Your task to perform on an android device: change notifications settings Image 0: 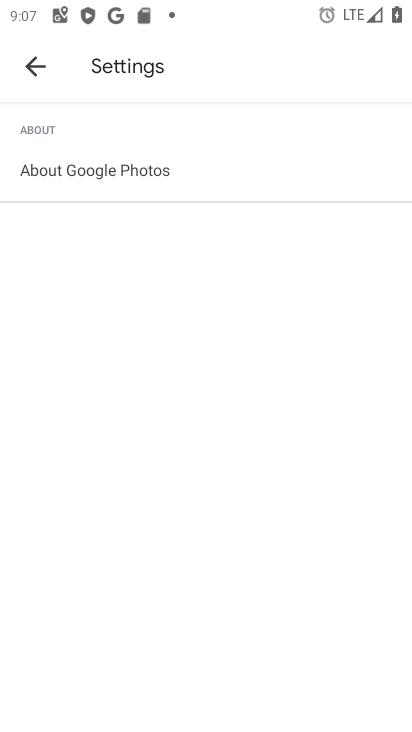
Step 0: press home button
Your task to perform on an android device: change notifications settings Image 1: 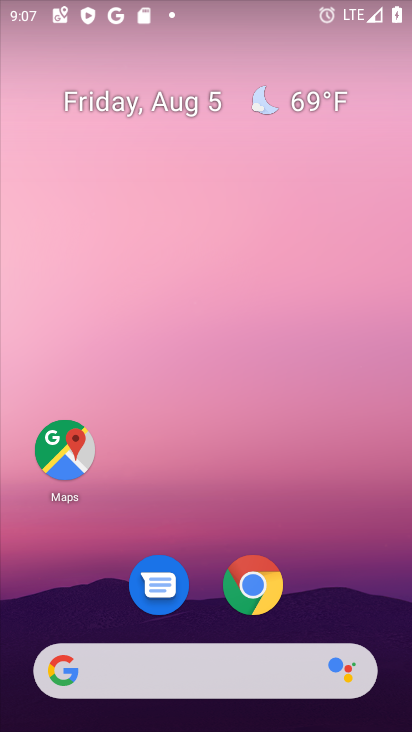
Step 1: drag from (312, 594) to (386, 20)
Your task to perform on an android device: change notifications settings Image 2: 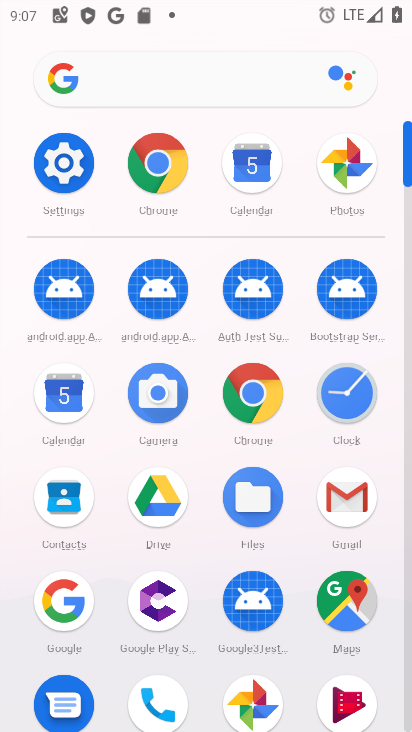
Step 2: click (72, 157)
Your task to perform on an android device: change notifications settings Image 3: 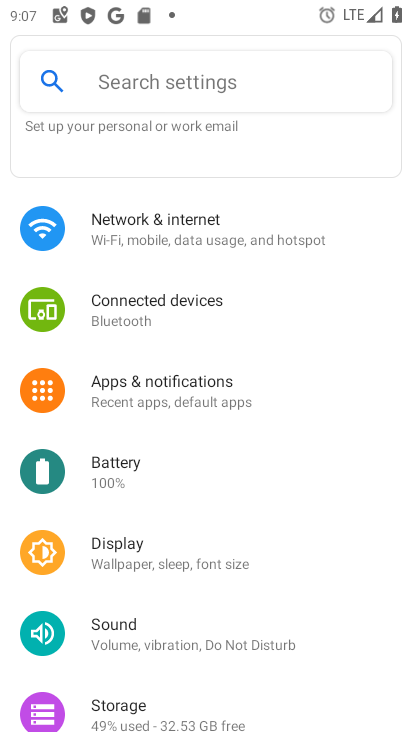
Step 3: click (205, 388)
Your task to perform on an android device: change notifications settings Image 4: 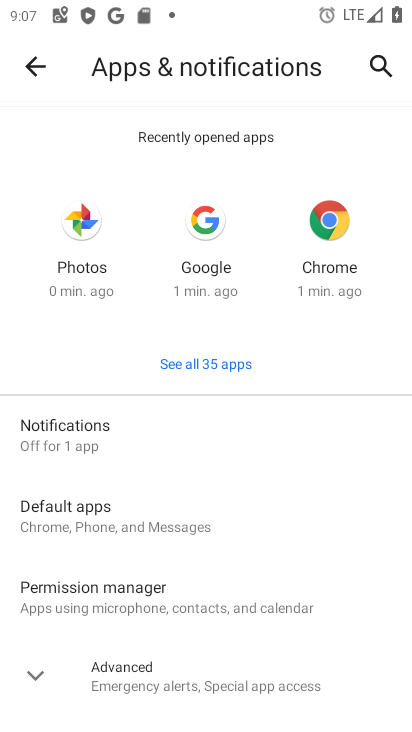
Step 4: click (97, 436)
Your task to perform on an android device: change notifications settings Image 5: 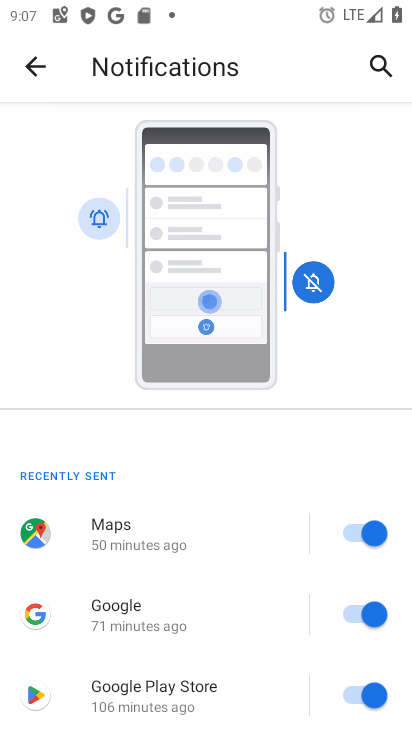
Step 5: drag from (264, 632) to (306, 218)
Your task to perform on an android device: change notifications settings Image 6: 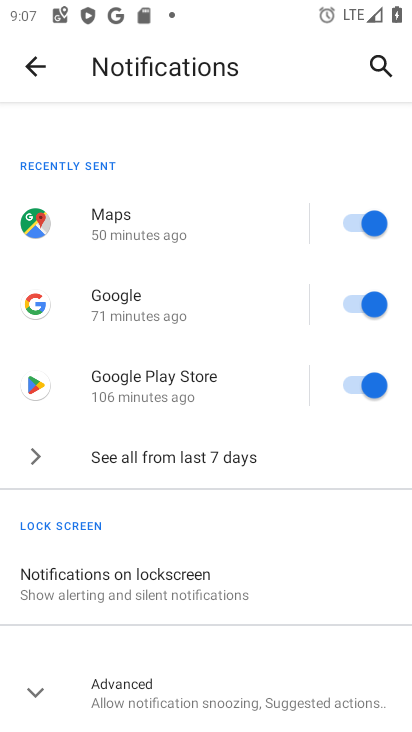
Step 6: click (235, 453)
Your task to perform on an android device: change notifications settings Image 7: 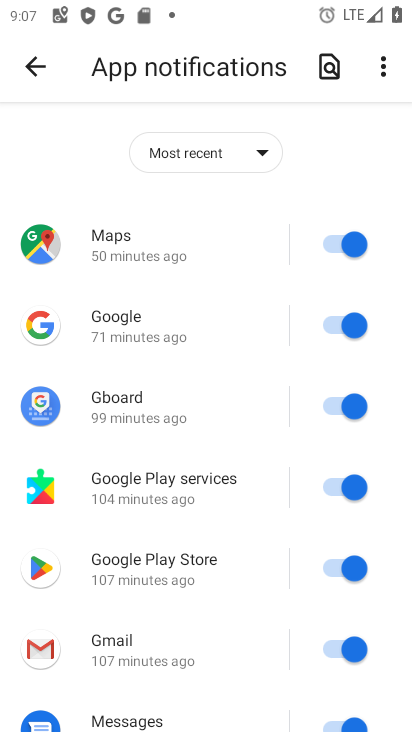
Step 7: click (342, 241)
Your task to perform on an android device: change notifications settings Image 8: 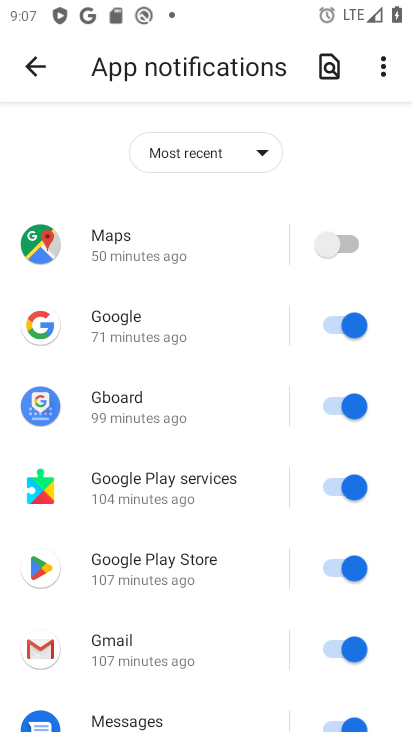
Step 8: click (345, 318)
Your task to perform on an android device: change notifications settings Image 9: 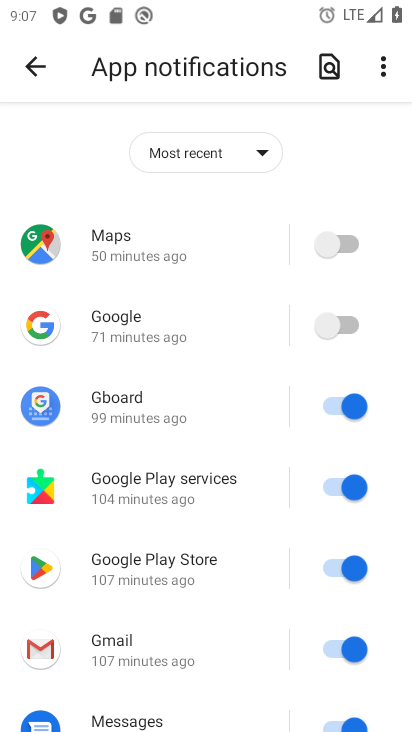
Step 9: click (347, 410)
Your task to perform on an android device: change notifications settings Image 10: 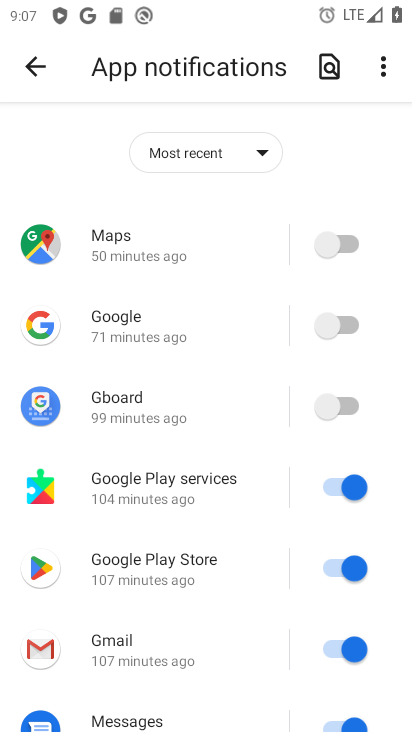
Step 10: click (347, 487)
Your task to perform on an android device: change notifications settings Image 11: 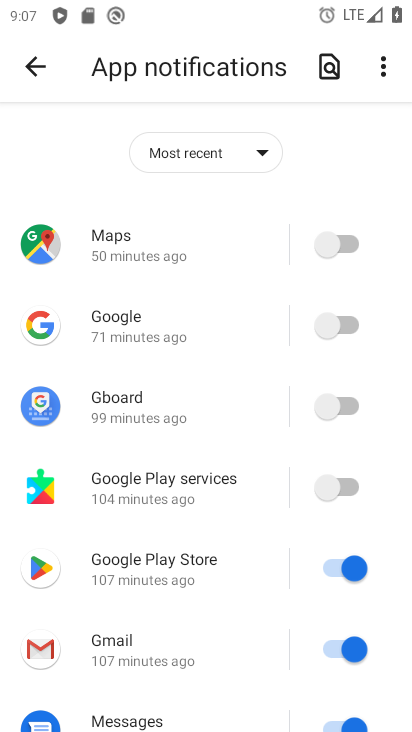
Step 11: click (345, 570)
Your task to perform on an android device: change notifications settings Image 12: 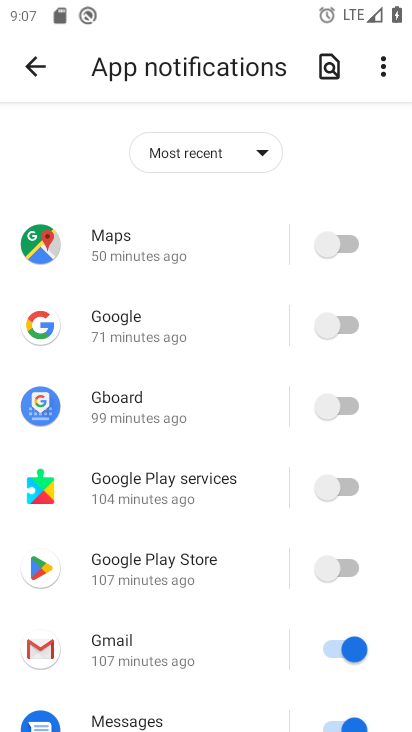
Step 12: click (343, 640)
Your task to perform on an android device: change notifications settings Image 13: 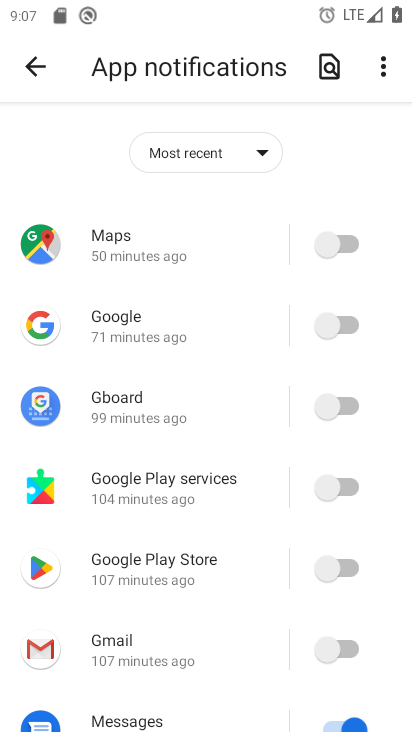
Step 13: drag from (200, 589) to (220, 215)
Your task to perform on an android device: change notifications settings Image 14: 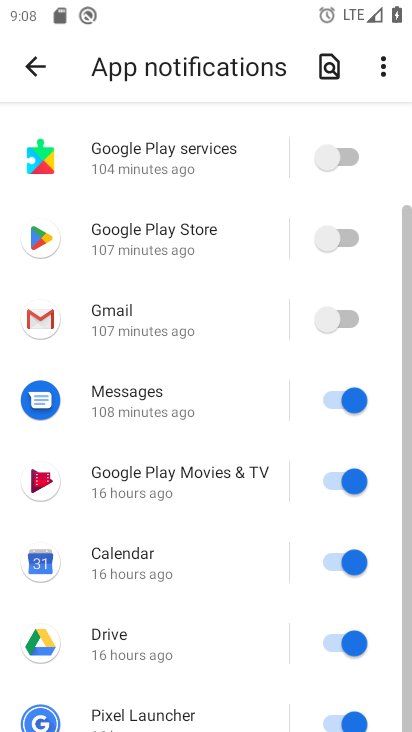
Step 14: drag from (224, 521) to (215, 248)
Your task to perform on an android device: change notifications settings Image 15: 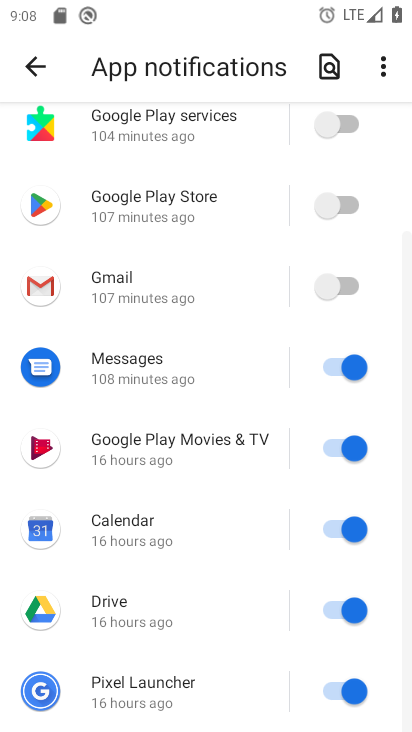
Step 15: click (337, 363)
Your task to perform on an android device: change notifications settings Image 16: 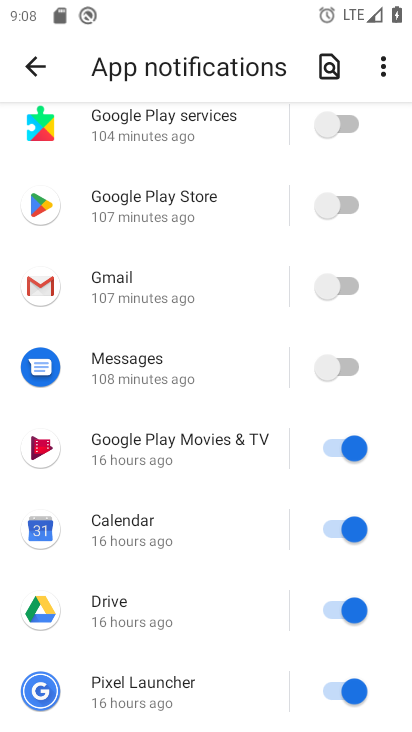
Step 16: click (354, 450)
Your task to perform on an android device: change notifications settings Image 17: 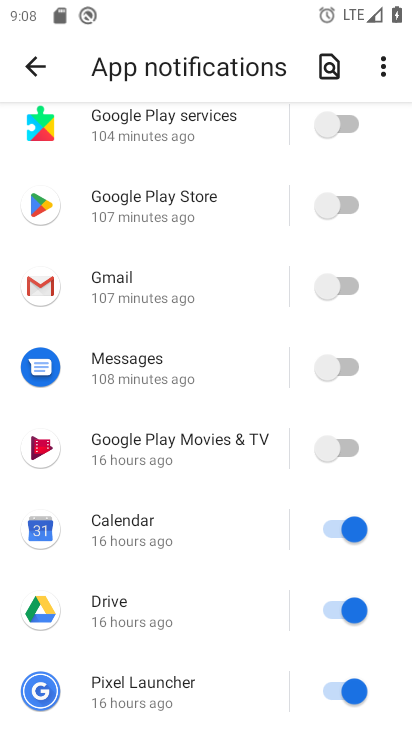
Step 17: click (352, 530)
Your task to perform on an android device: change notifications settings Image 18: 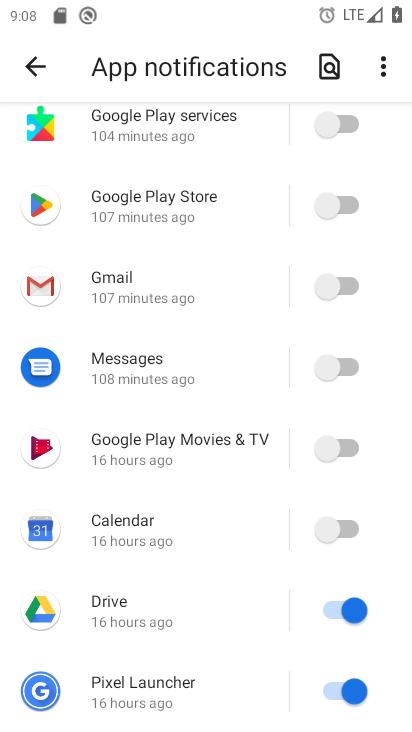
Step 18: click (347, 609)
Your task to perform on an android device: change notifications settings Image 19: 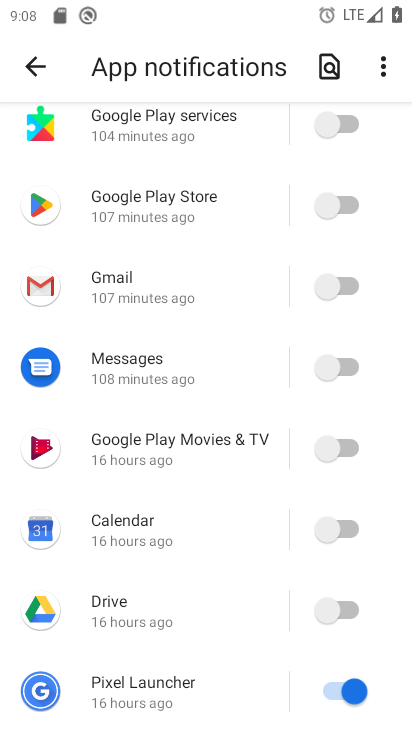
Step 19: click (347, 686)
Your task to perform on an android device: change notifications settings Image 20: 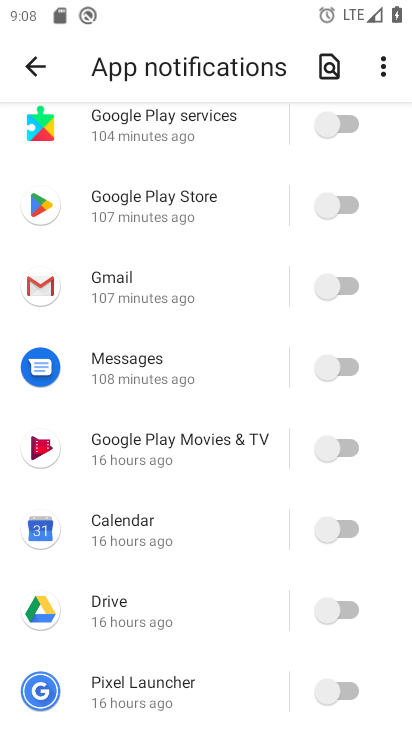
Step 20: task complete